Your task to perform on an android device: Search for a new desk on IKEA. Image 0: 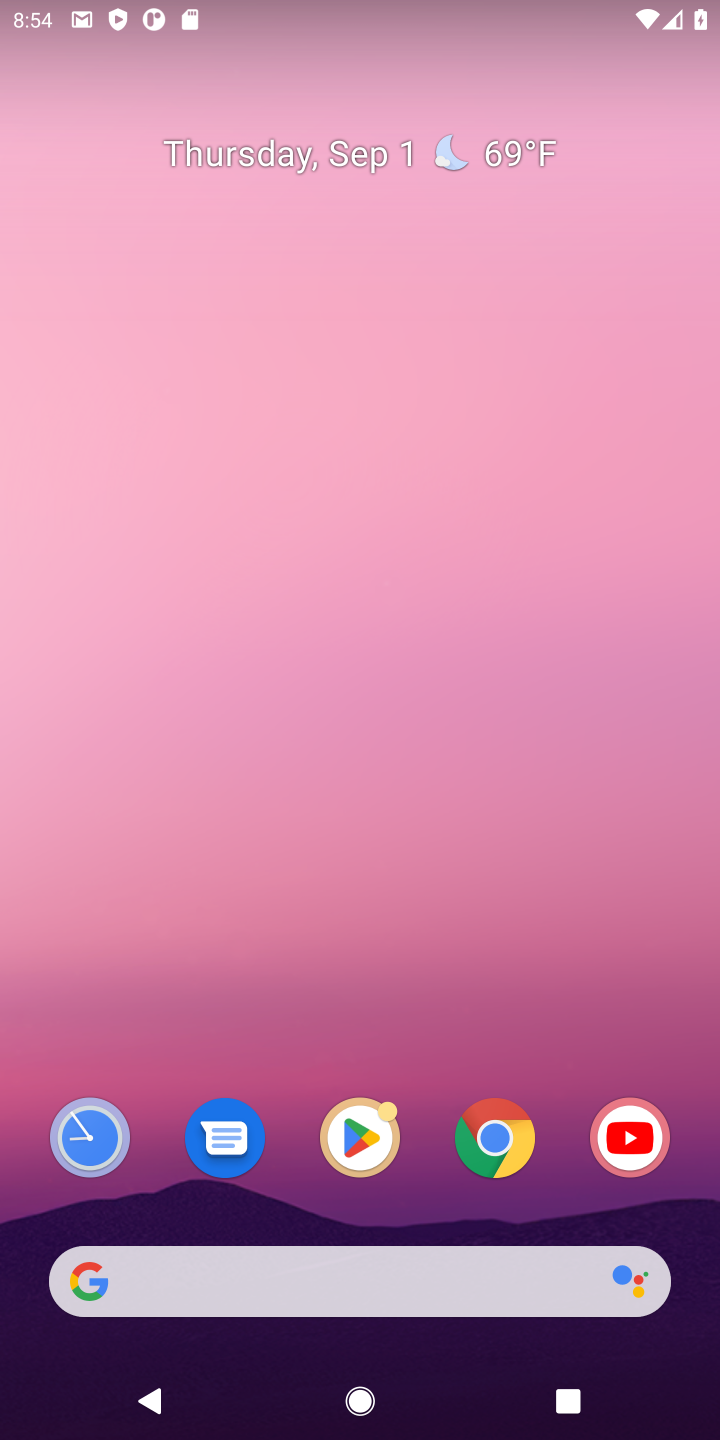
Step 0: click (491, 1154)
Your task to perform on an android device: Search for a new desk on IKEA. Image 1: 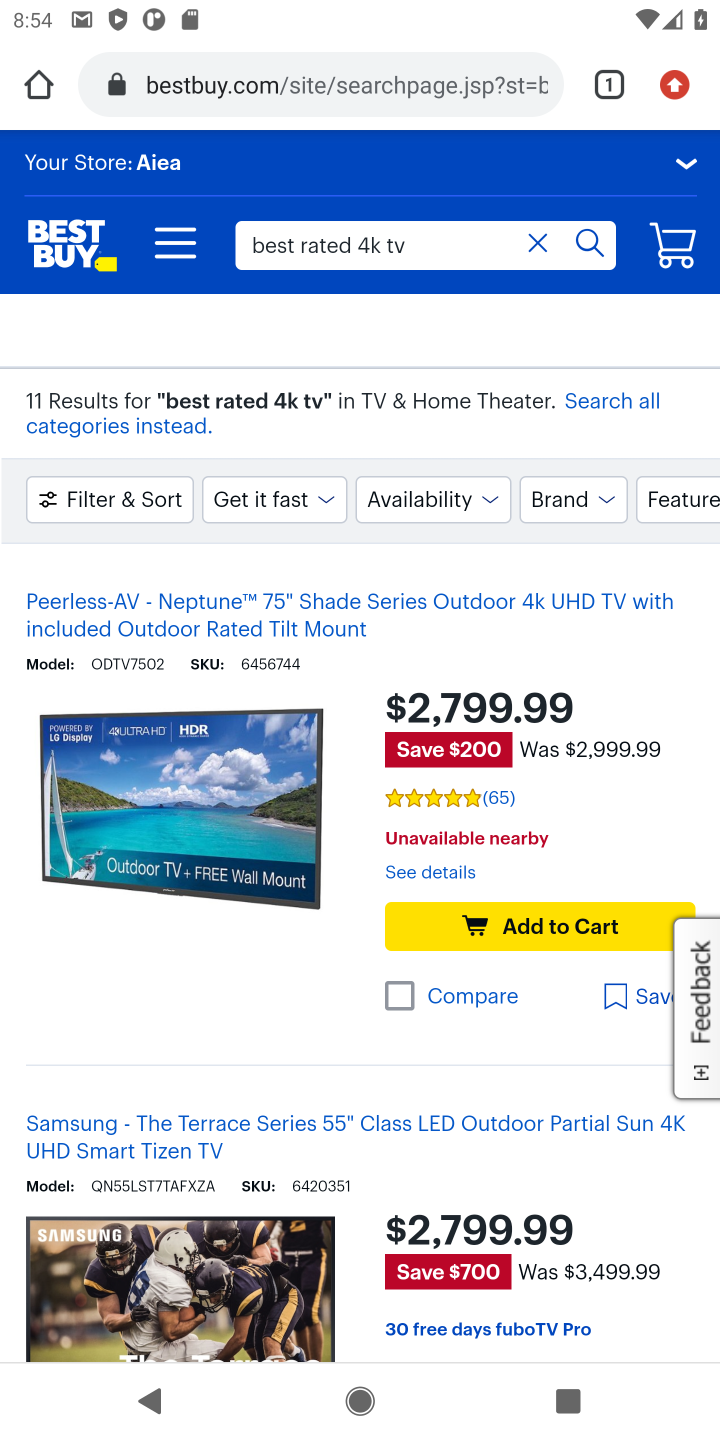
Step 1: click (615, 103)
Your task to perform on an android device: Search for a new desk on IKEA. Image 2: 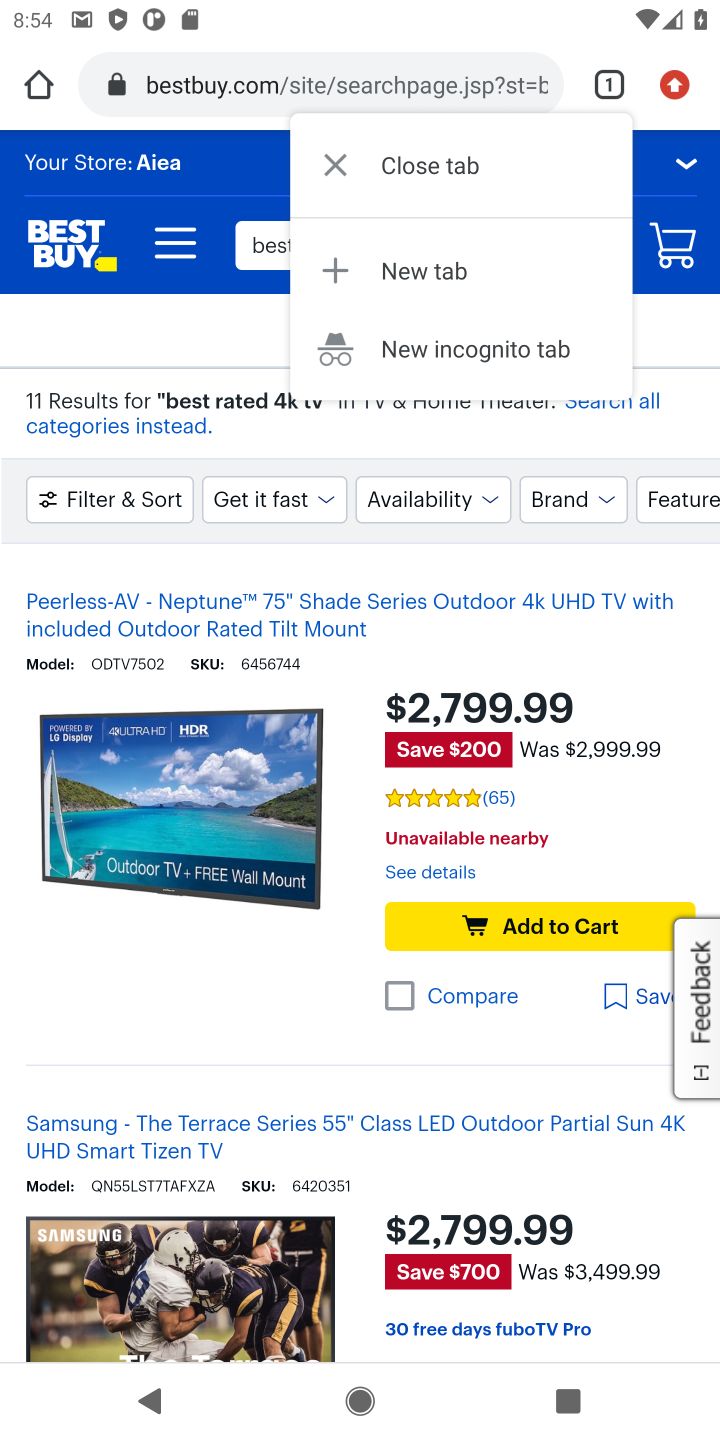
Step 2: click (426, 274)
Your task to perform on an android device: Search for a new desk on IKEA. Image 3: 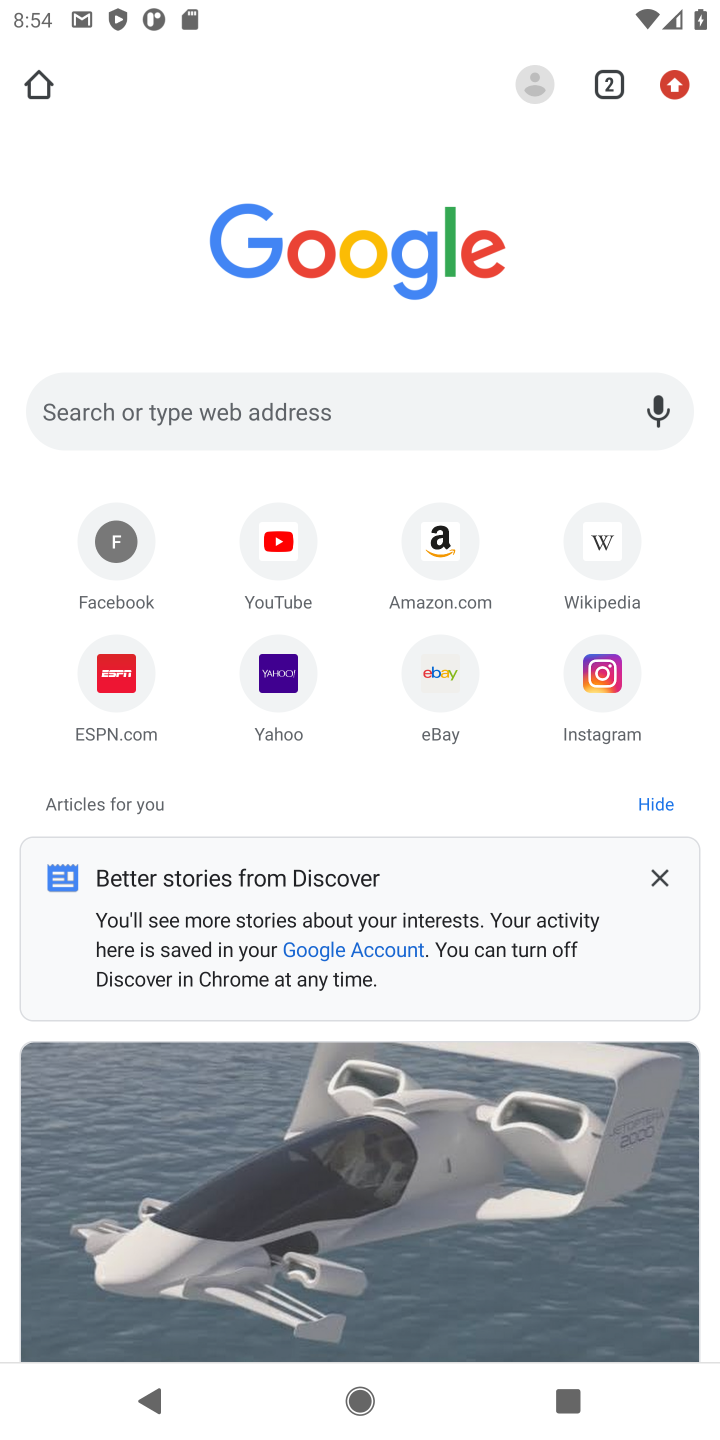
Step 3: click (334, 403)
Your task to perform on an android device: Search for a new desk on IKEA. Image 4: 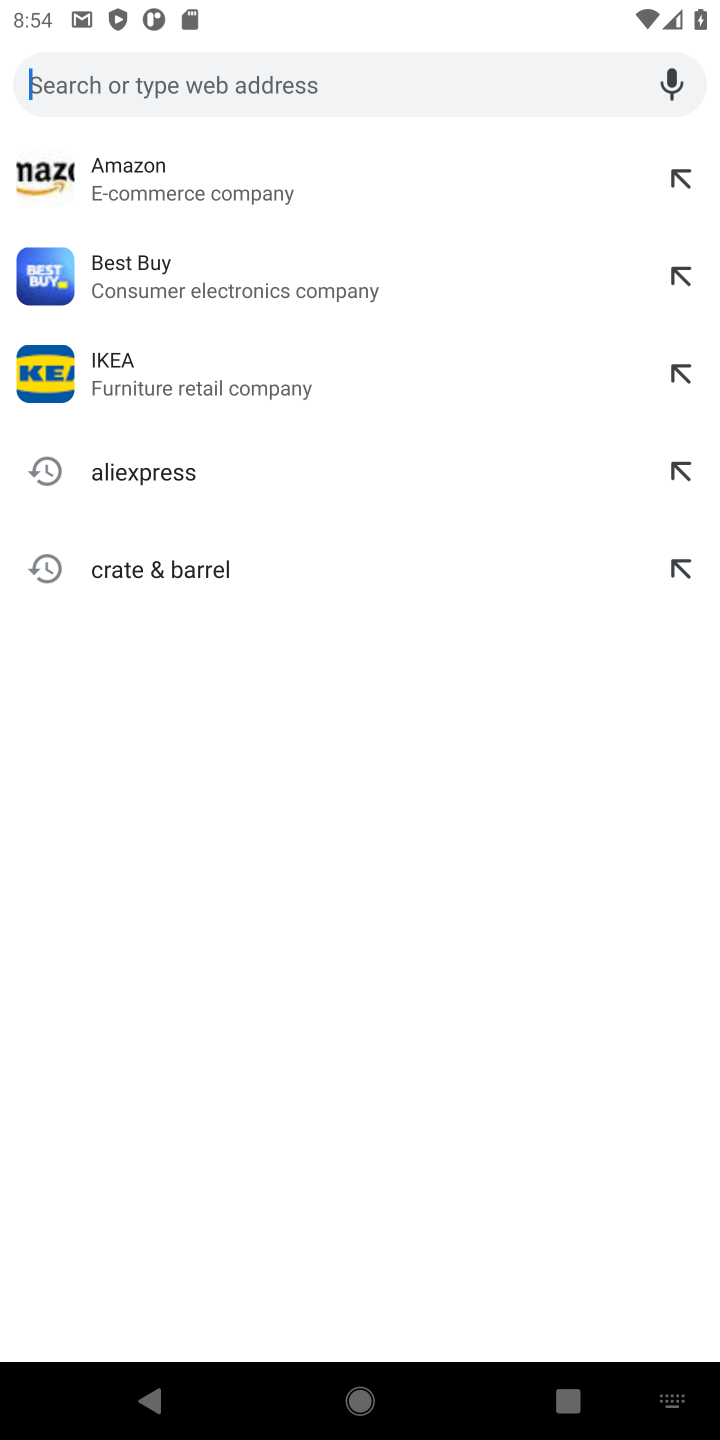
Step 4: type "ikea"
Your task to perform on an android device: Search for a new desk on IKEA. Image 5: 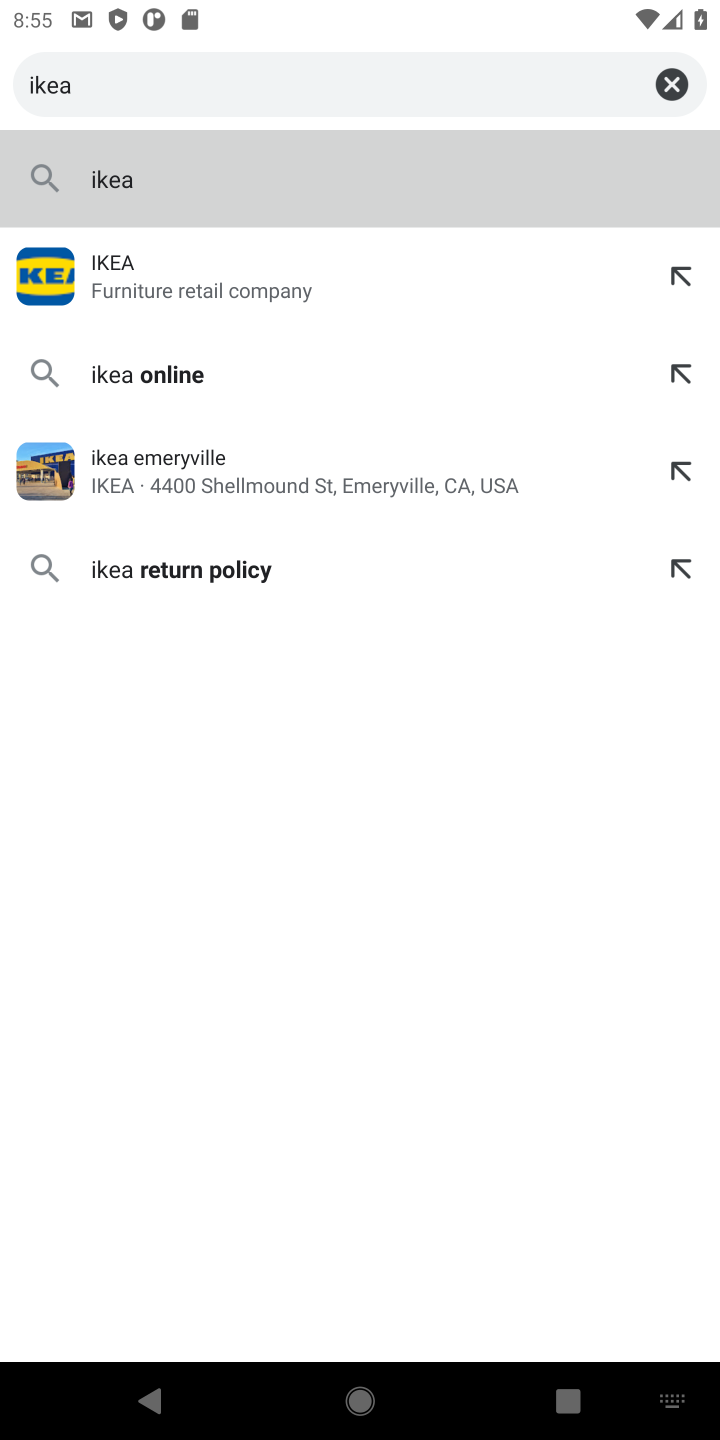
Step 5: click (234, 284)
Your task to perform on an android device: Search for a new desk on IKEA. Image 6: 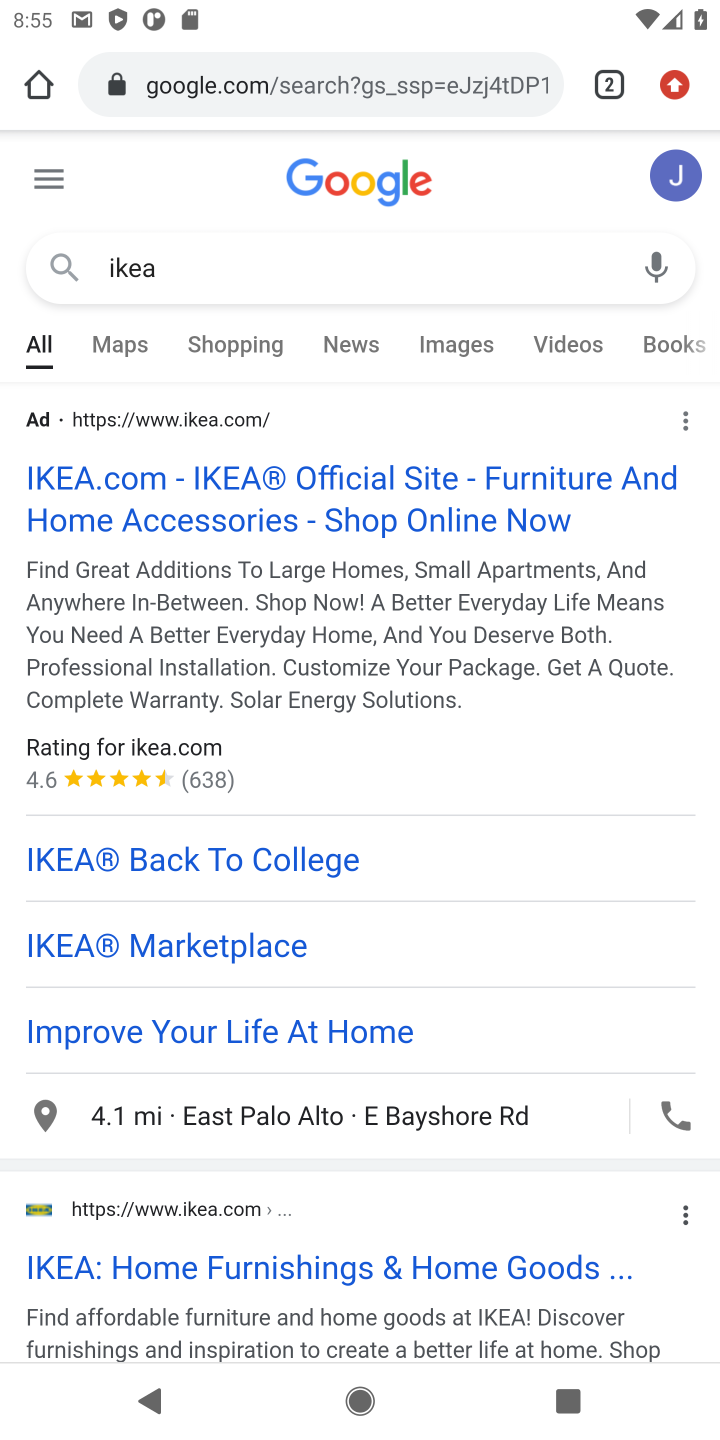
Step 6: click (197, 524)
Your task to perform on an android device: Search for a new desk on IKEA. Image 7: 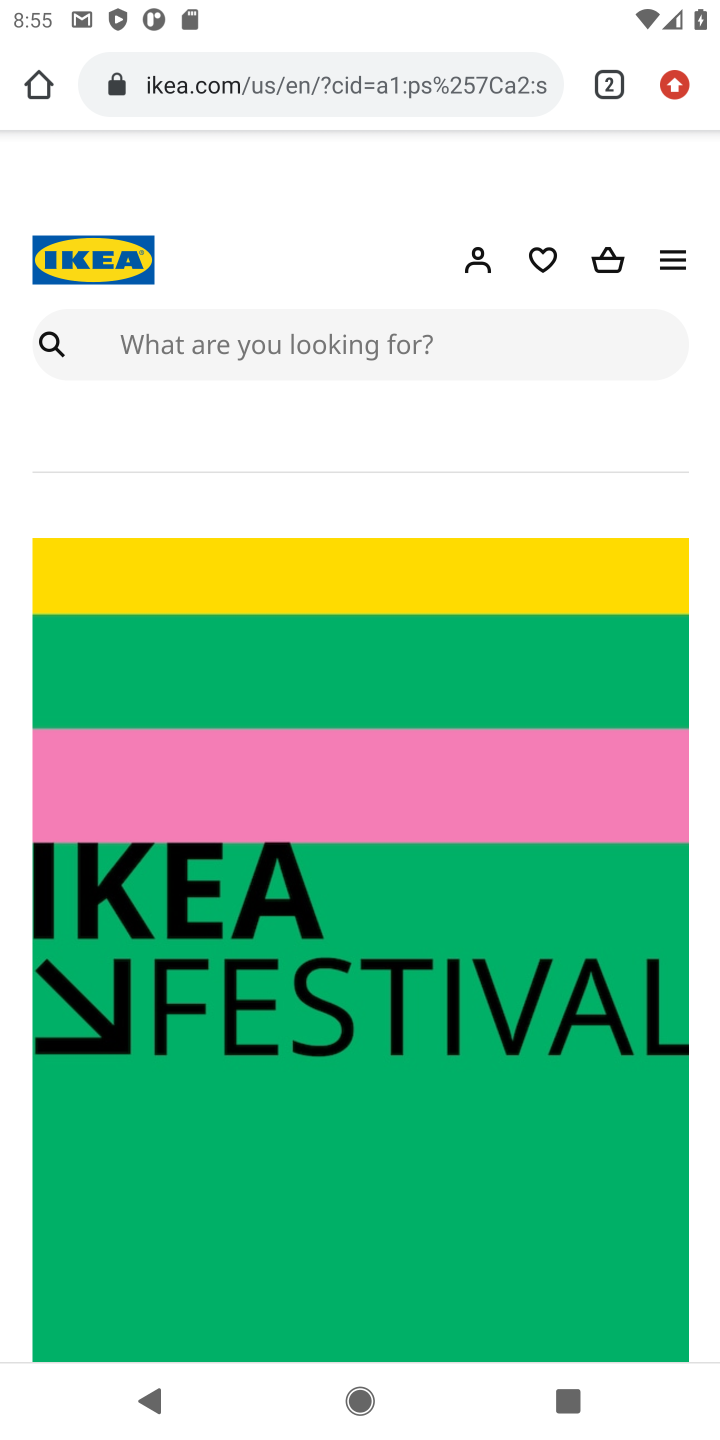
Step 7: click (332, 336)
Your task to perform on an android device: Search for a new desk on IKEA. Image 8: 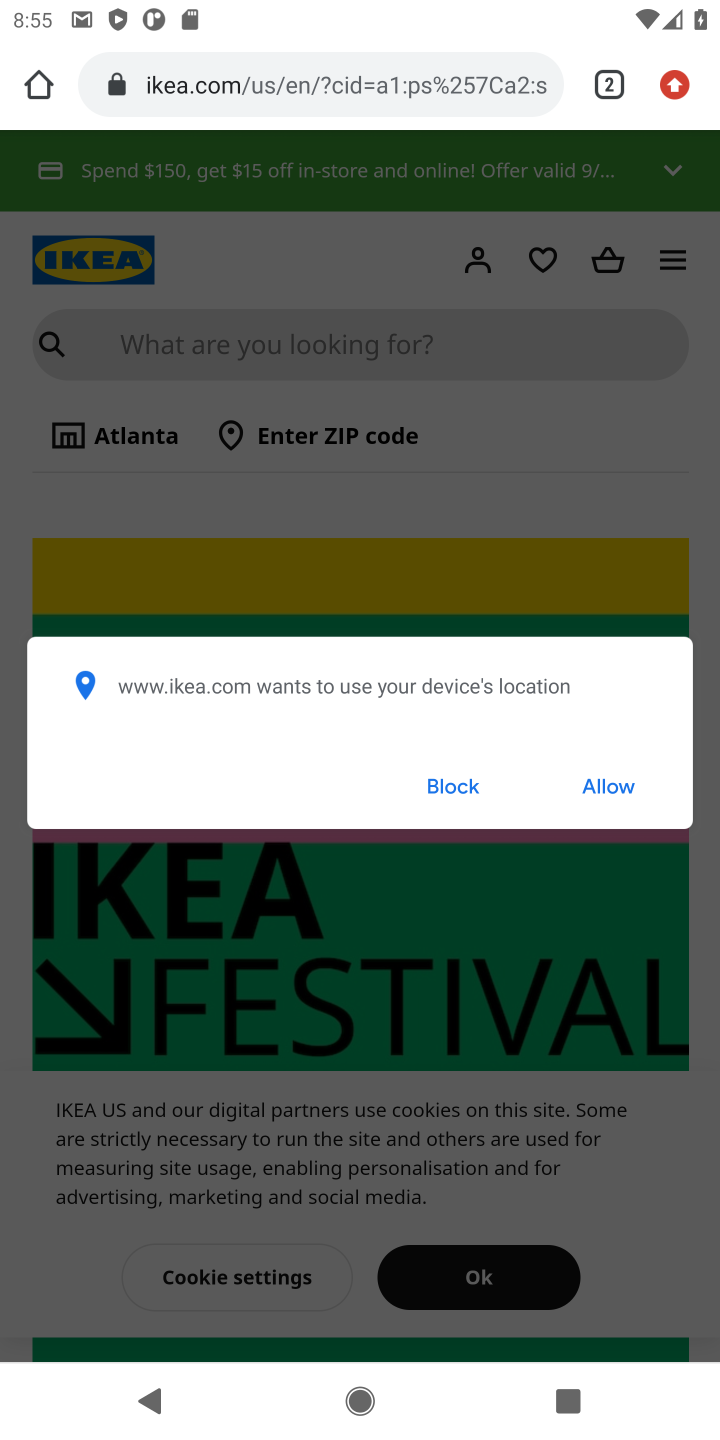
Step 8: type "new desl"
Your task to perform on an android device: Search for a new desk on IKEA. Image 9: 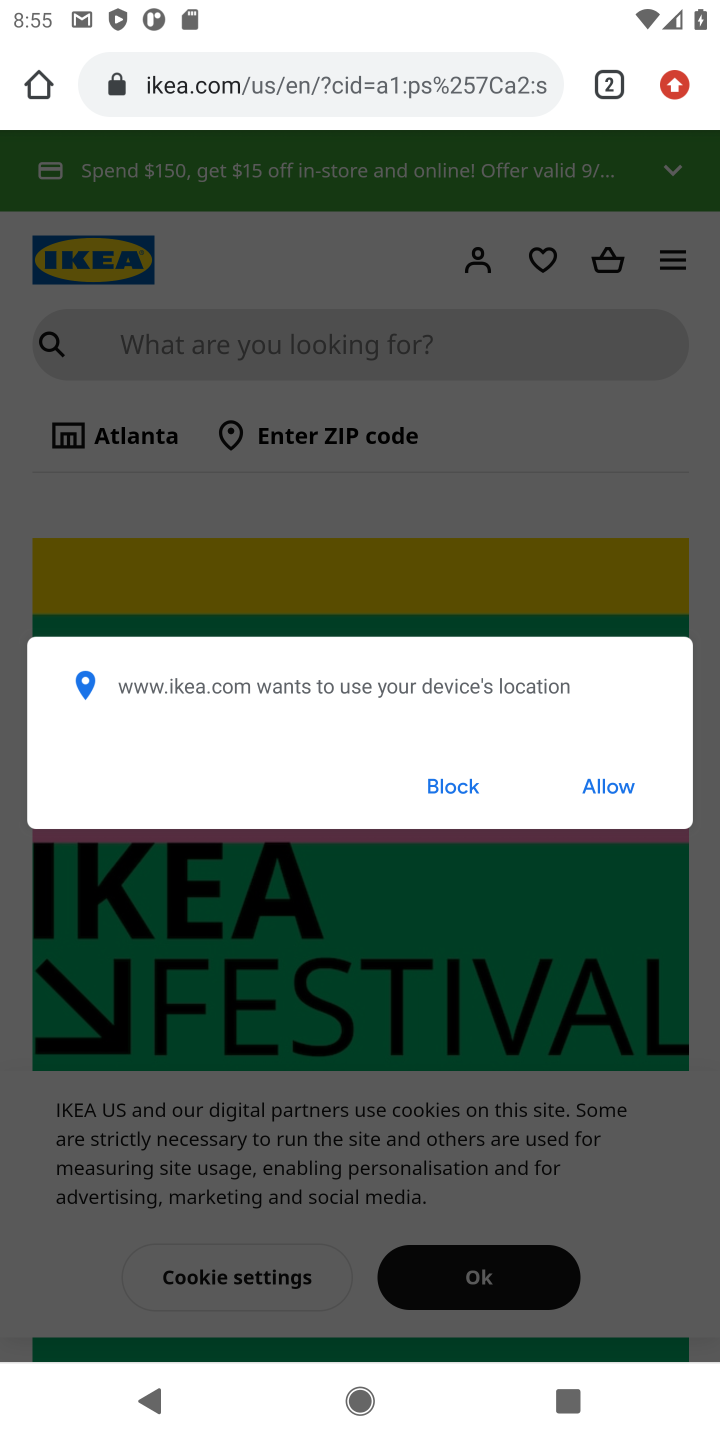
Step 9: click (466, 782)
Your task to perform on an android device: Search for a new desk on IKEA. Image 10: 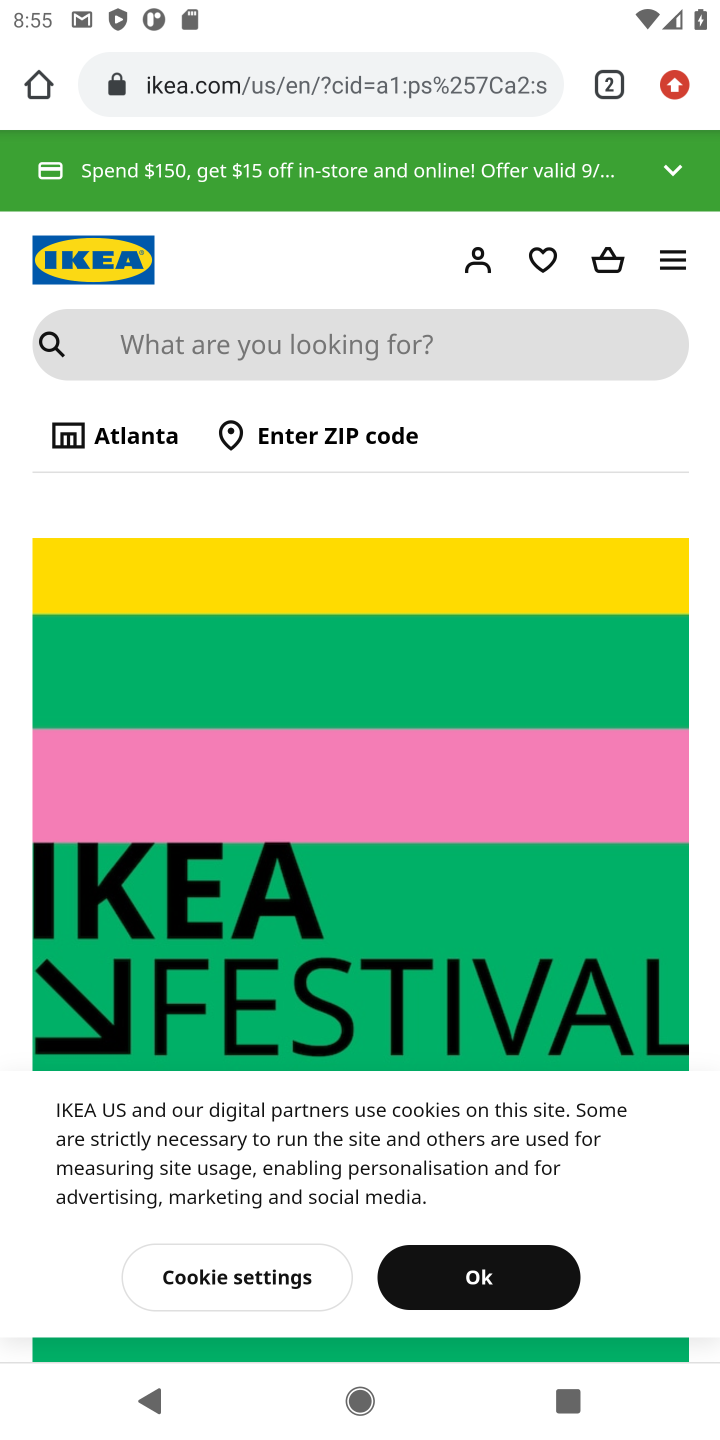
Step 10: click (349, 335)
Your task to perform on an android device: Search for a new desk on IKEA. Image 11: 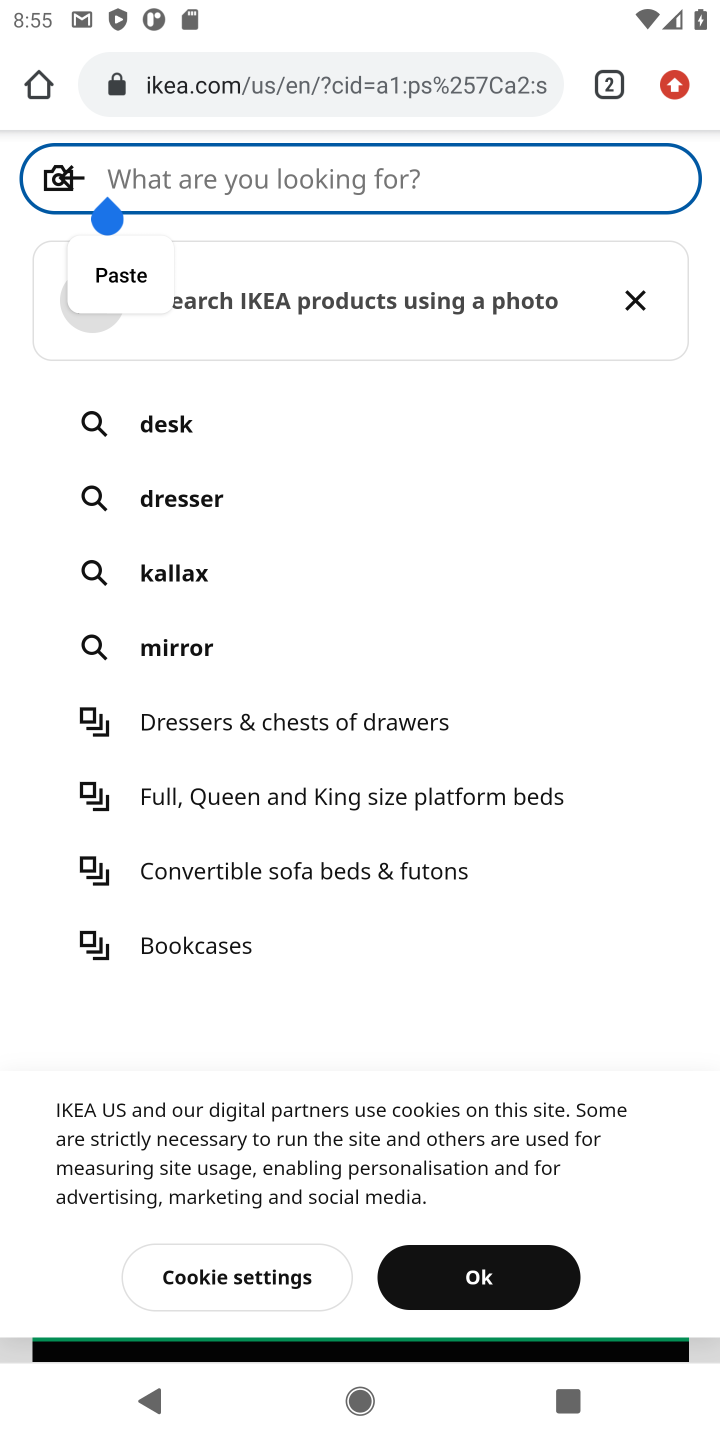
Step 11: type "new desk"
Your task to perform on an android device: Search for a new desk on IKEA. Image 12: 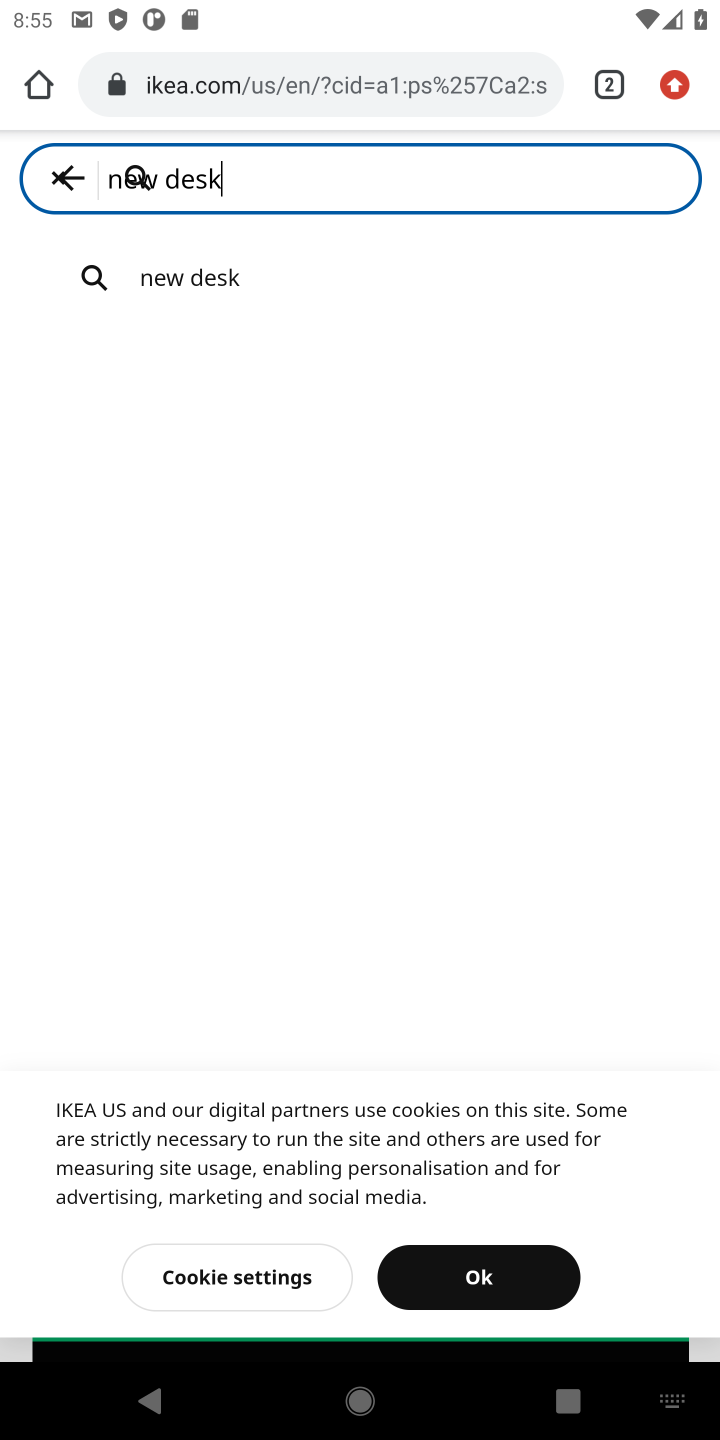
Step 12: click (225, 278)
Your task to perform on an android device: Search for a new desk on IKEA. Image 13: 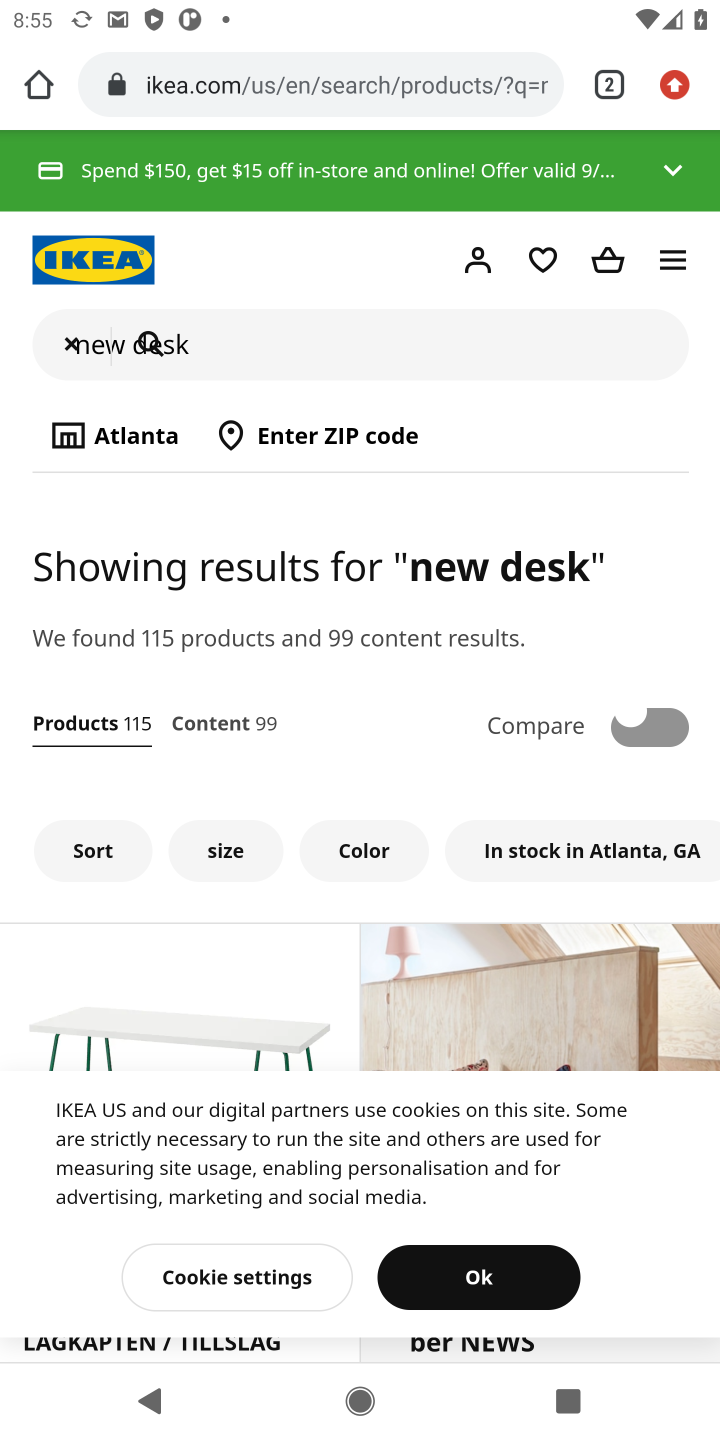
Step 13: task complete